Your task to perform on an android device: delete a single message in the gmail app Image 0: 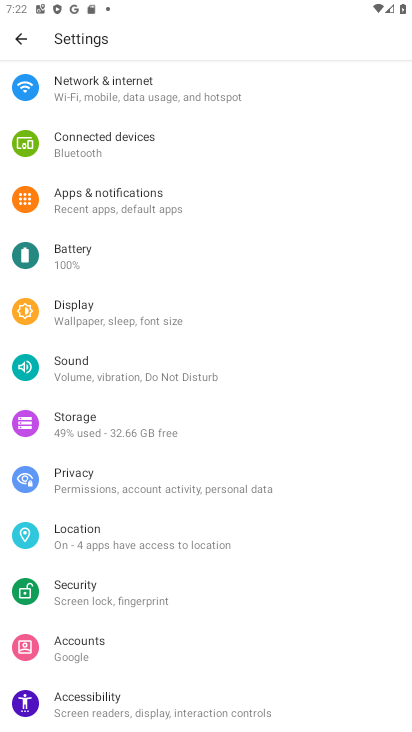
Step 0: press home button
Your task to perform on an android device: delete a single message in the gmail app Image 1: 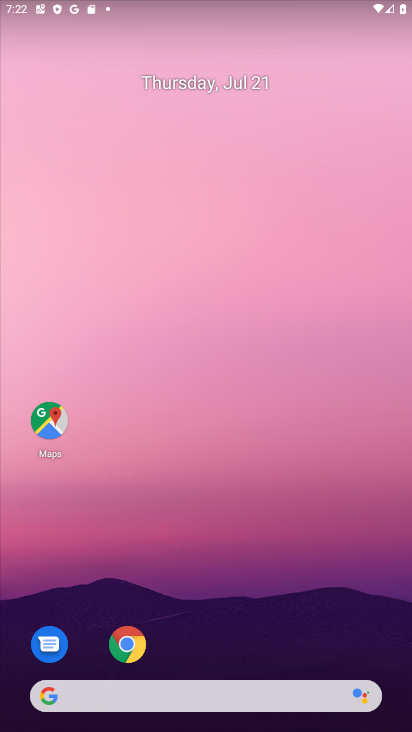
Step 1: drag from (280, 418) to (290, 233)
Your task to perform on an android device: delete a single message in the gmail app Image 2: 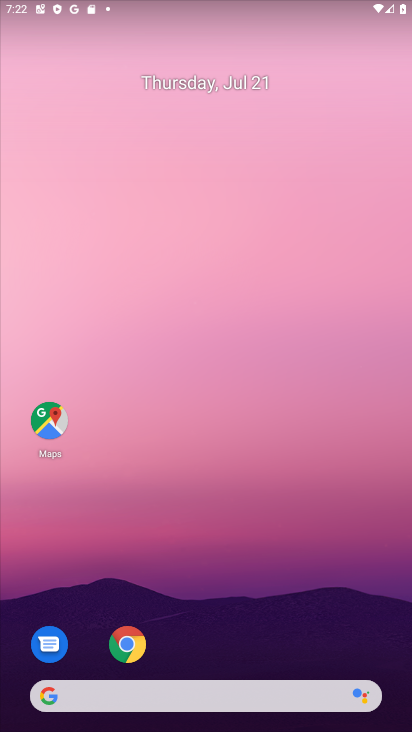
Step 2: drag from (188, 571) to (196, 161)
Your task to perform on an android device: delete a single message in the gmail app Image 3: 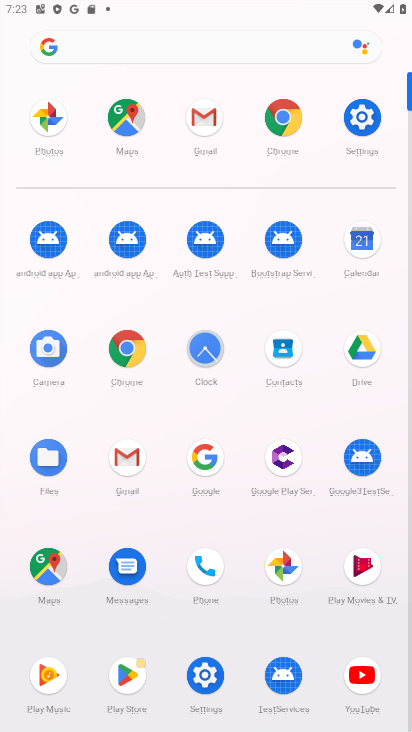
Step 3: click (118, 453)
Your task to perform on an android device: delete a single message in the gmail app Image 4: 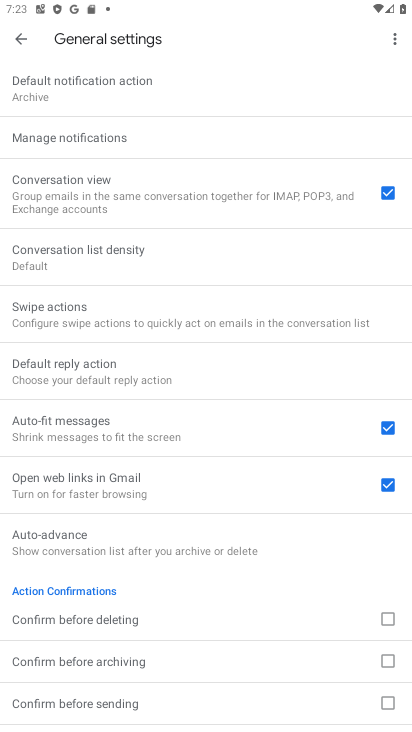
Step 4: click (20, 45)
Your task to perform on an android device: delete a single message in the gmail app Image 5: 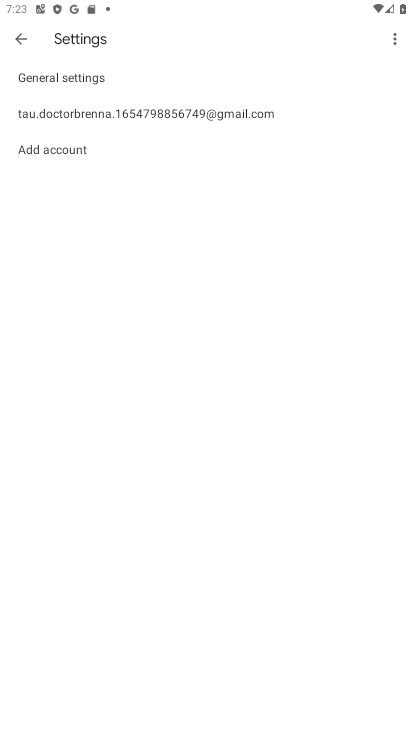
Step 5: click (19, 45)
Your task to perform on an android device: delete a single message in the gmail app Image 6: 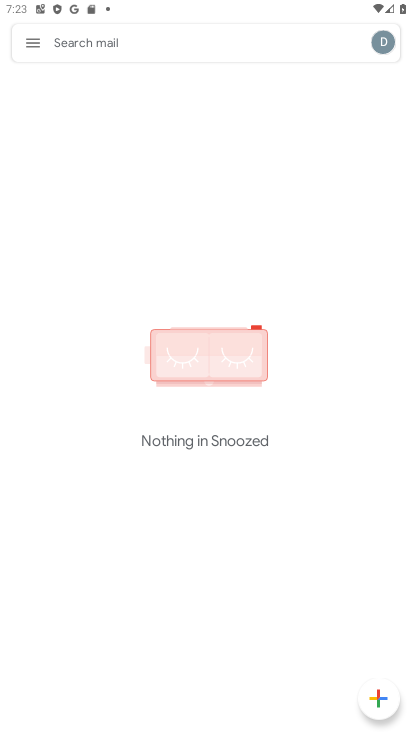
Step 6: click (19, 45)
Your task to perform on an android device: delete a single message in the gmail app Image 7: 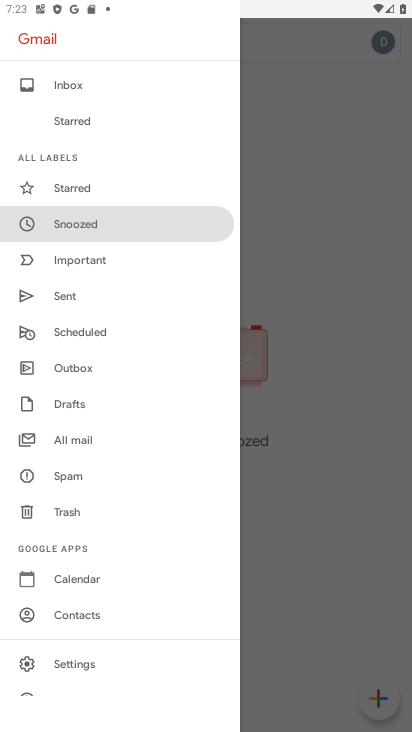
Step 7: click (70, 93)
Your task to perform on an android device: delete a single message in the gmail app Image 8: 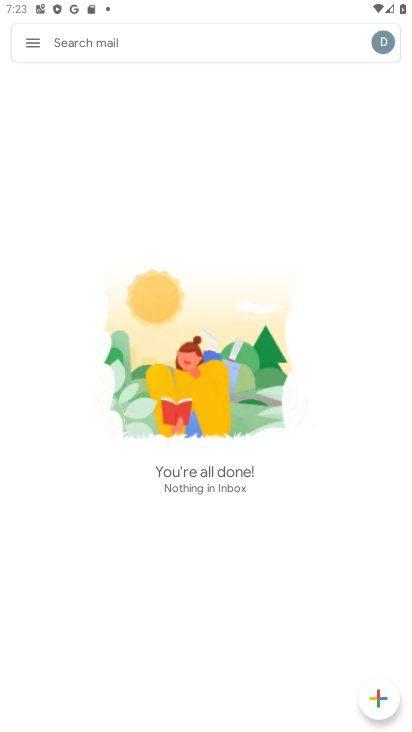
Step 8: task complete